Your task to perform on an android device: Open location settings Image 0: 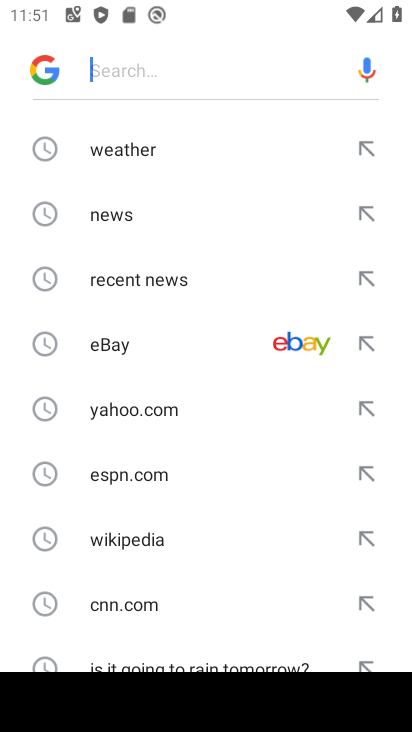
Step 0: press back button
Your task to perform on an android device: Open location settings Image 1: 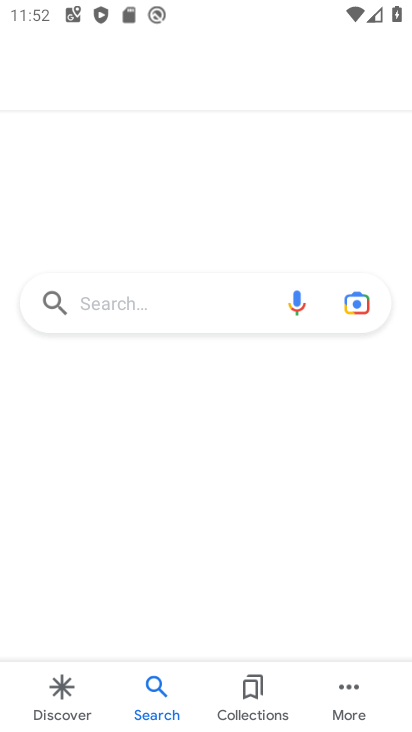
Step 1: press back button
Your task to perform on an android device: Open location settings Image 2: 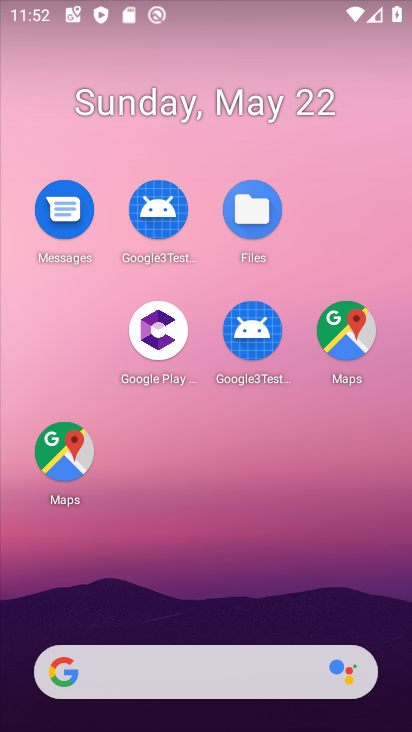
Step 2: drag from (229, 630) to (282, 0)
Your task to perform on an android device: Open location settings Image 3: 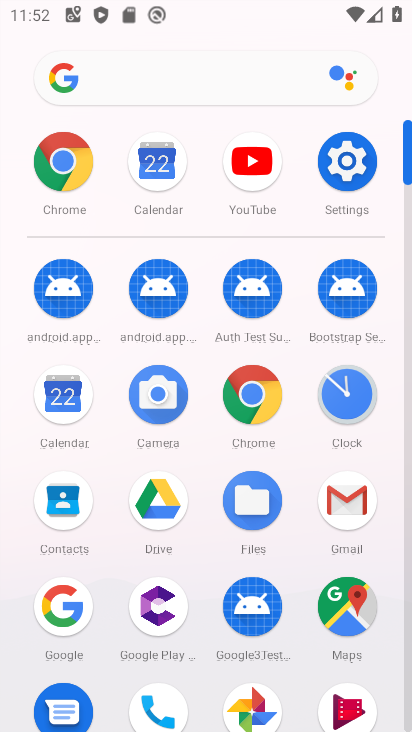
Step 3: click (356, 173)
Your task to perform on an android device: Open location settings Image 4: 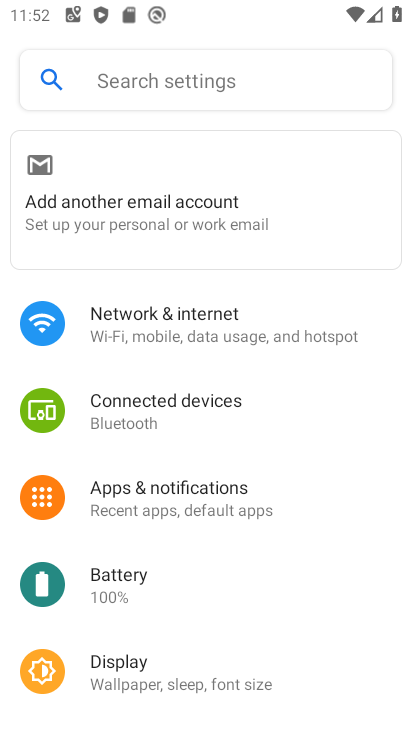
Step 4: drag from (229, 541) to (189, 106)
Your task to perform on an android device: Open location settings Image 5: 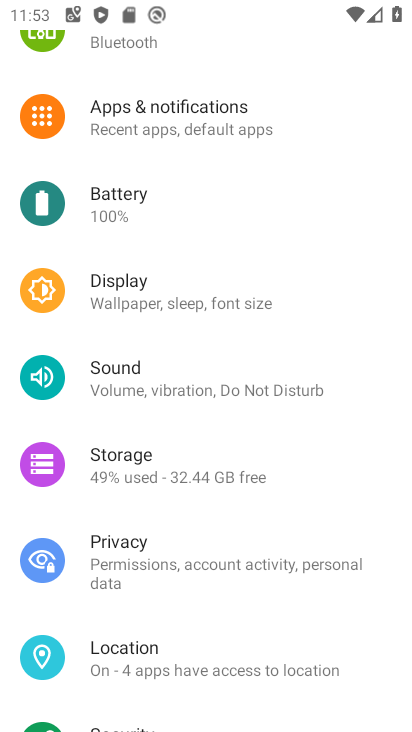
Step 5: click (142, 651)
Your task to perform on an android device: Open location settings Image 6: 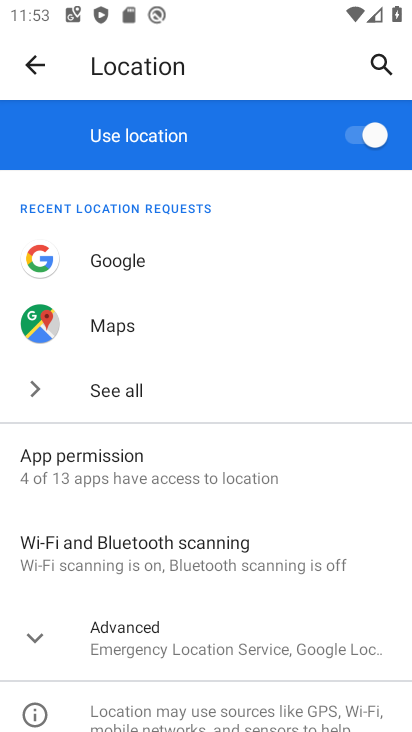
Step 6: task complete